Your task to perform on an android device: turn on translation in the chrome app Image 0: 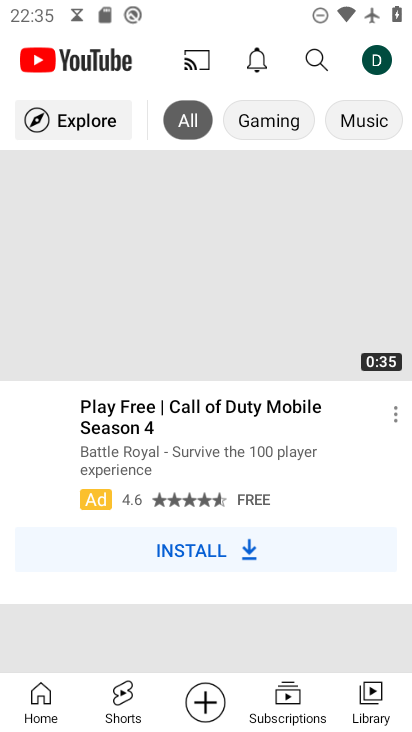
Step 0: press home button
Your task to perform on an android device: turn on translation in the chrome app Image 1: 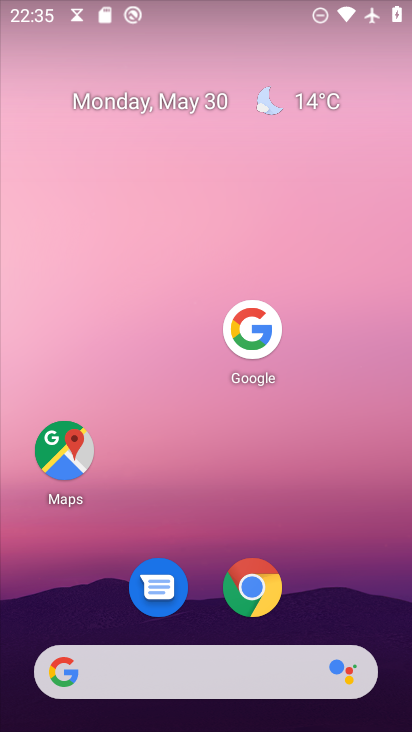
Step 1: click (252, 592)
Your task to perform on an android device: turn on translation in the chrome app Image 2: 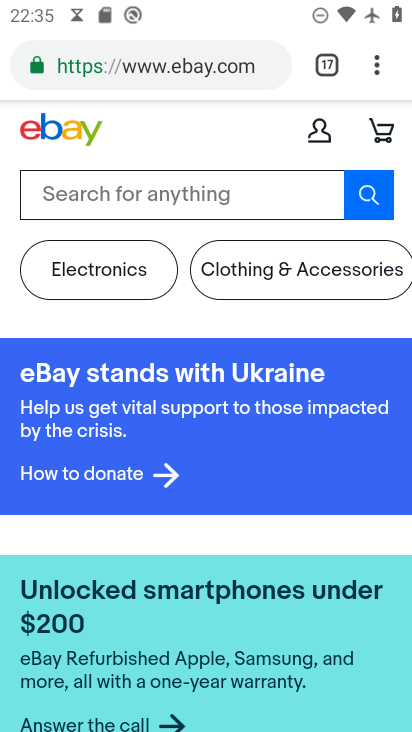
Step 2: drag from (378, 74) to (232, 637)
Your task to perform on an android device: turn on translation in the chrome app Image 3: 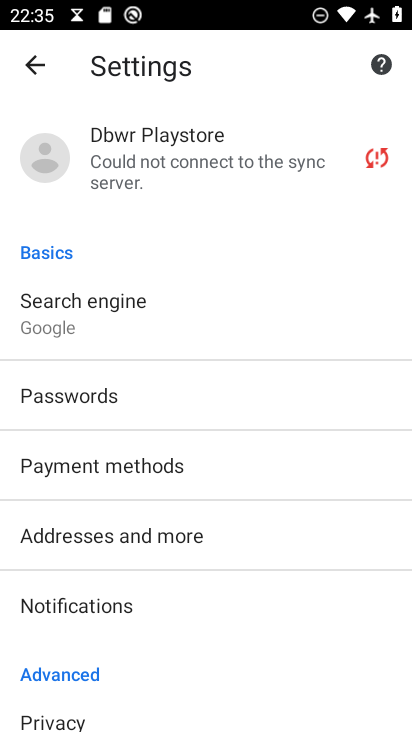
Step 3: drag from (154, 623) to (240, 150)
Your task to perform on an android device: turn on translation in the chrome app Image 4: 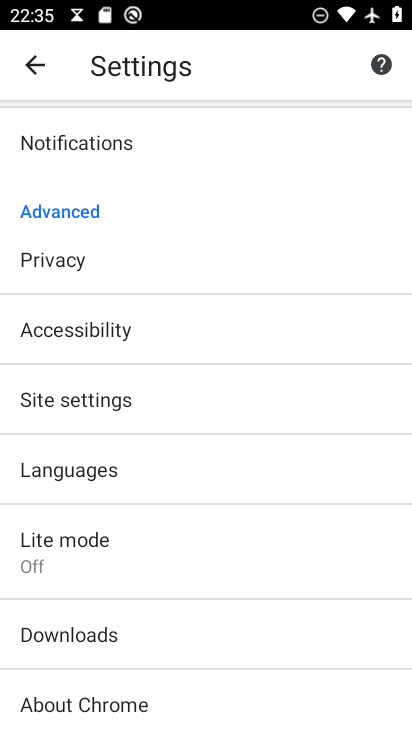
Step 4: click (87, 459)
Your task to perform on an android device: turn on translation in the chrome app Image 5: 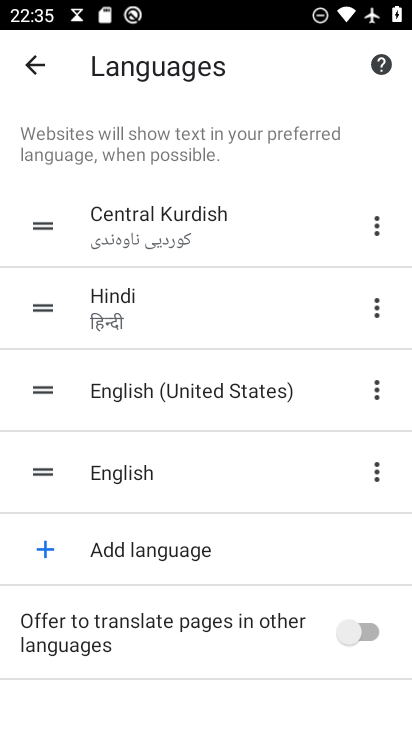
Step 5: click (369, 641)
Your task to perform on an android device: turn on translation in the chrome app Image 6: 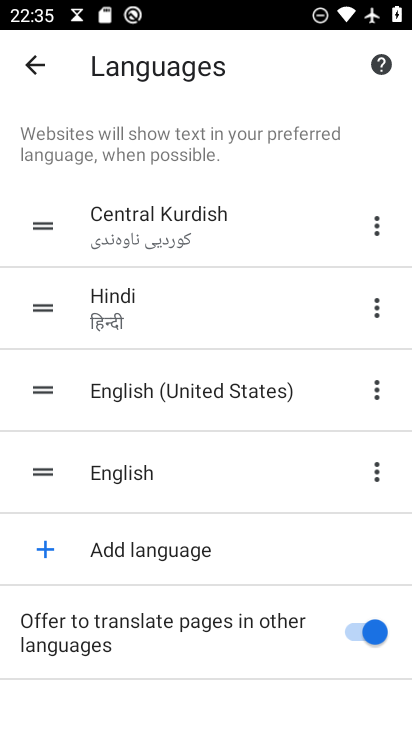
Step 6: task complete